Your task to perform on an android device: Open network settings Image 0: 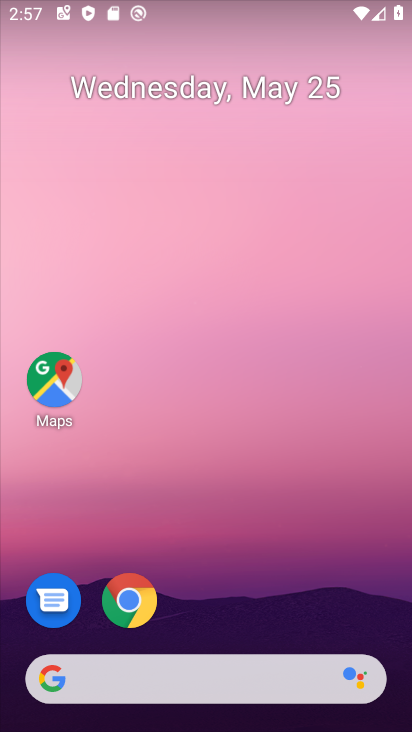
Step 0: drag from (3, 653) to (189, 73)
Your task to perform on an android device: Open network settings Image 1: 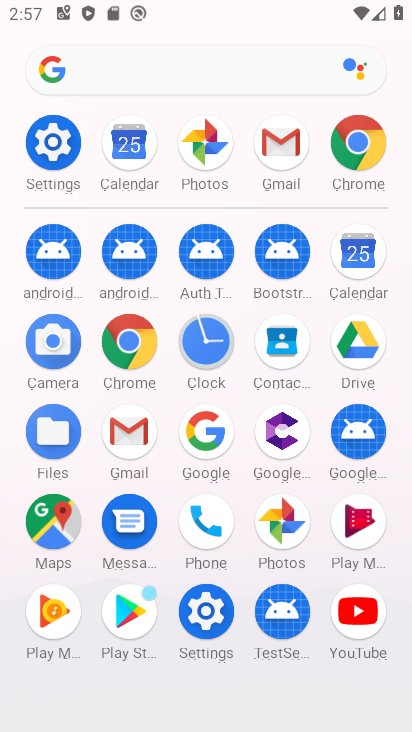
Step 1: click (72, 141)
Your task to perform on an android device: Open network settings Image 2: 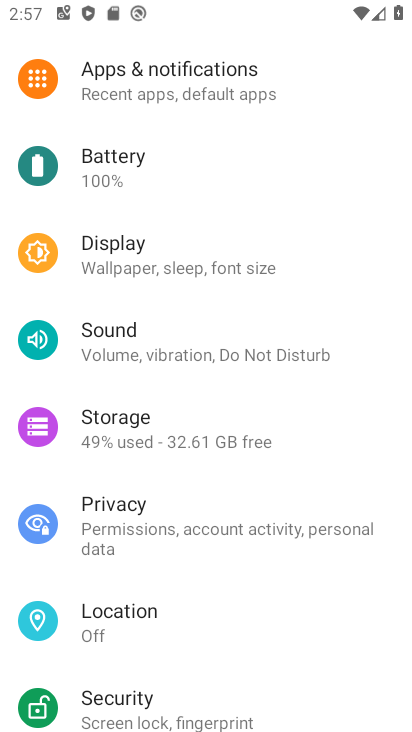
Step 2: drag from (207, 79) to (240, 584)
Your task to perform on an android device: Open network settings Image 3: 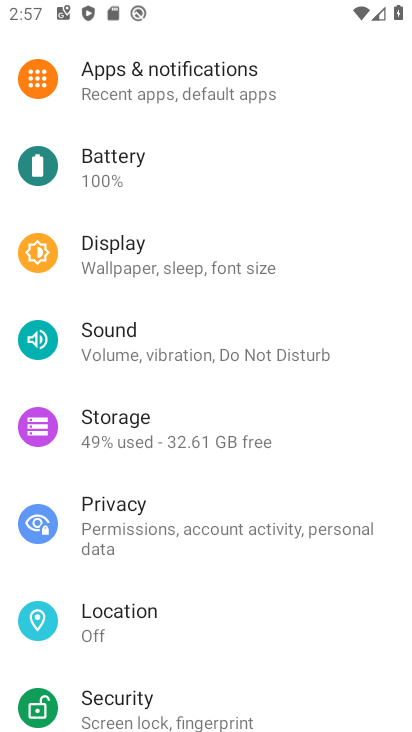
Step 3: drag from (117, 85) to (180, 494)
Your task to perform on an android device: Open network settings Image 4: 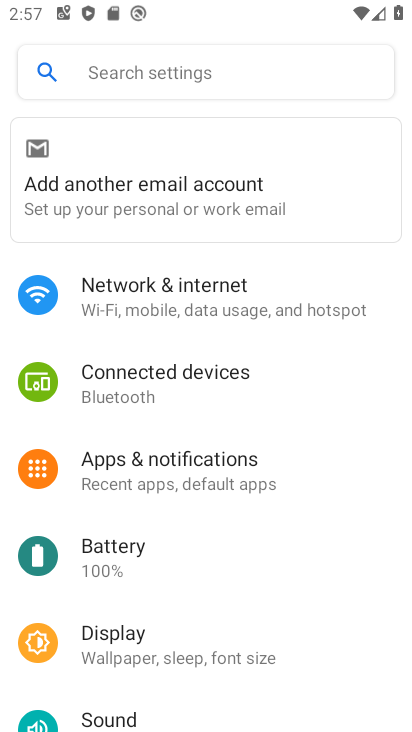
Step 4: click (191, 297)
Your task to perform on an android device: Open network settings Image 5: 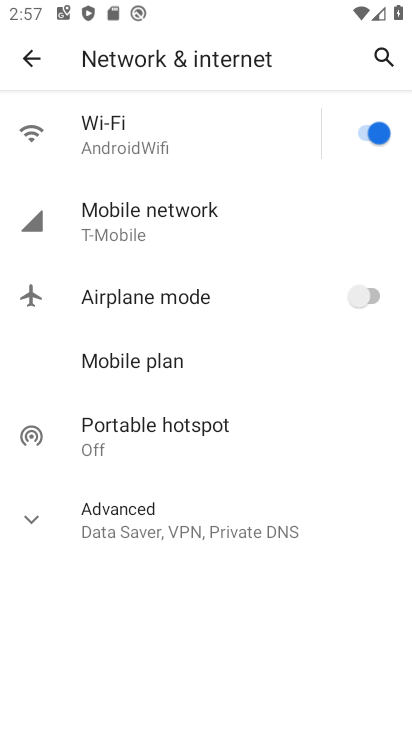
Step 5: click (173, 216)
Your task to perform on an android device: Open network settings Image 6: 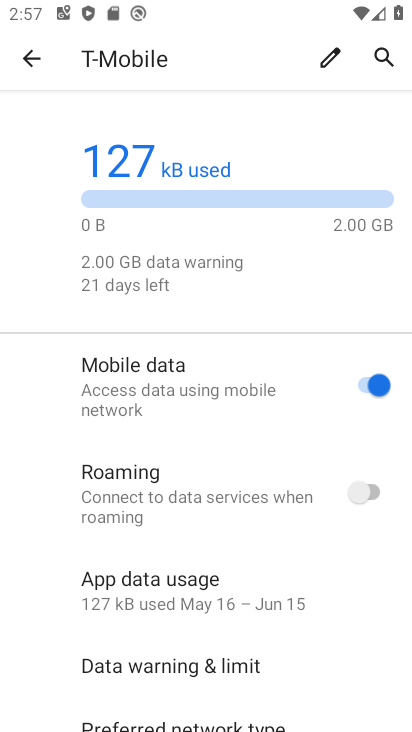
Step 6: task complete